Your task to perform on an android device: Open eBay Image 0: 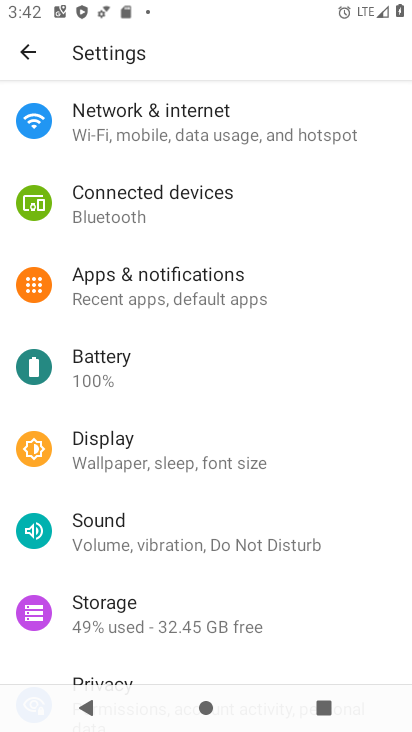
Step 0: press home button
Your task to perform on an android device: Open eBay Image 1: 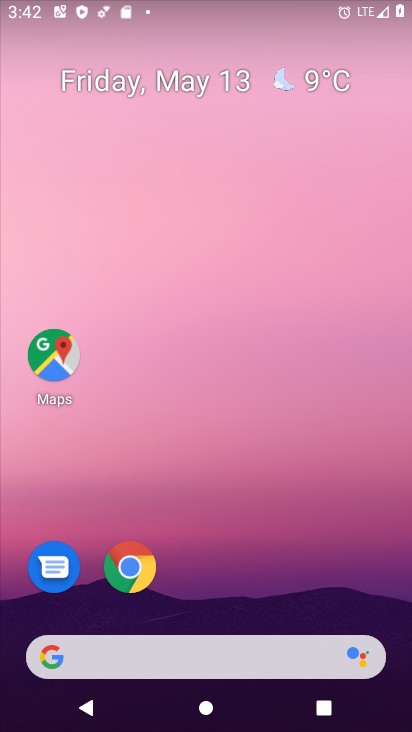
Step 1: click (136, 569)
Your task to perform on an android device: Open eBay Image 2: 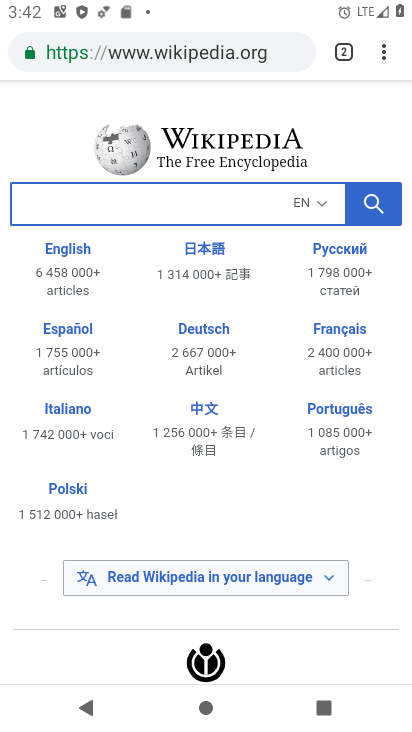
Step 2: click (123, 55)
Your task to perform on an android device: Open eBay Image 3: 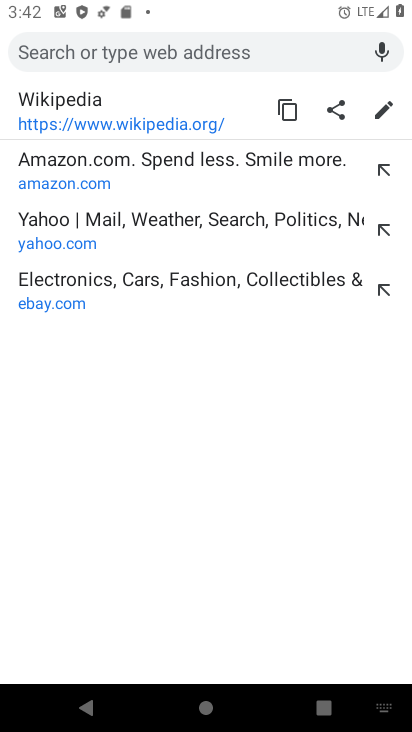
Step 3: click (44, 303)
Your task to perform on an android device: Open eBay Image 4: 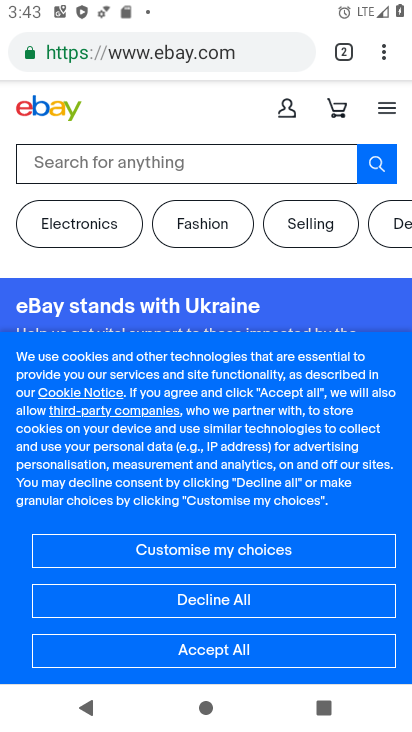
Step 4: task complete